Your task to perform on an android device: turn off data saver in the chrome app Image 0: 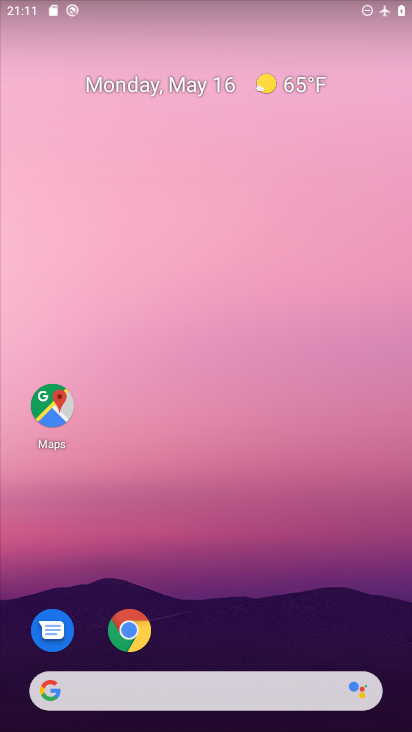
Step 0: click (129, 612)
Your task to perform on an android device: turn off data saver in the chrome app Image 1: 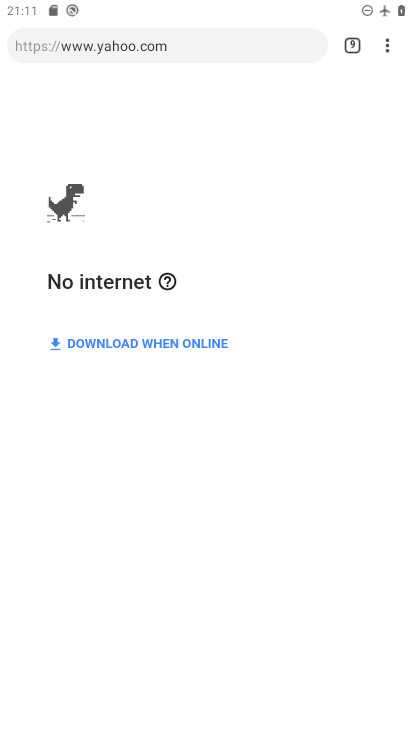
Step 1: click (387, 42)
Your task to perform on an android device: turn off data saver in the chrome app Image 2: 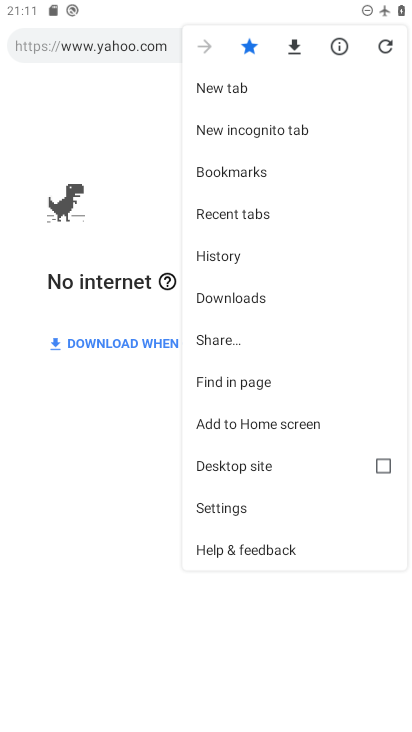
Step 2: click (217, 502)
Your task to perform on an android device: turn off data saver in the chrome app Image 3: 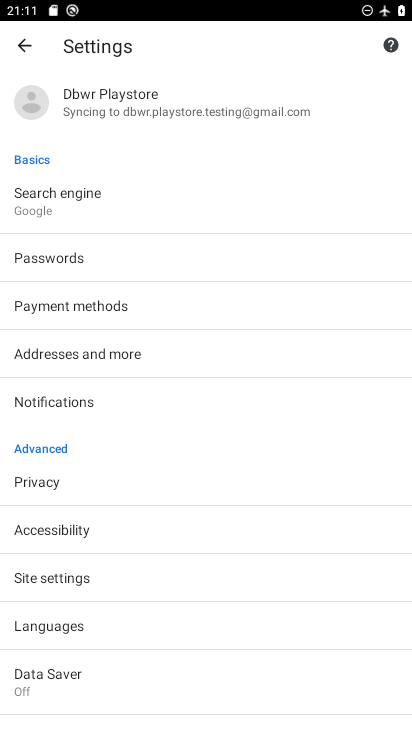
Step 3: click (62, 671)
Your task to perform on an android device: turn off data saver in the chrome app Image 4: 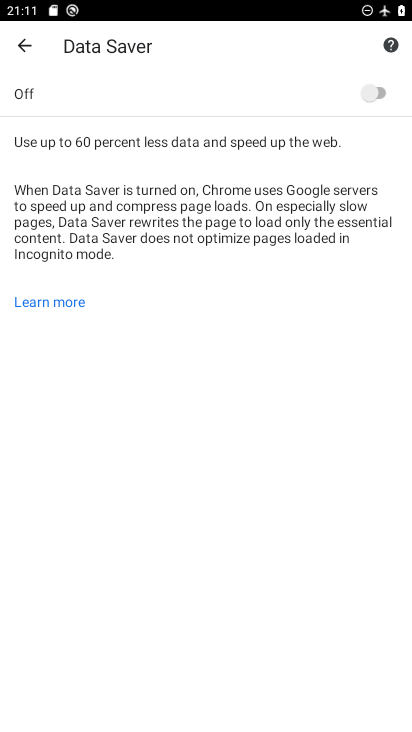
Step 4: task complete